Your task to perform on an android device: read, delete, or share a saved page in the chrome app Image 0: 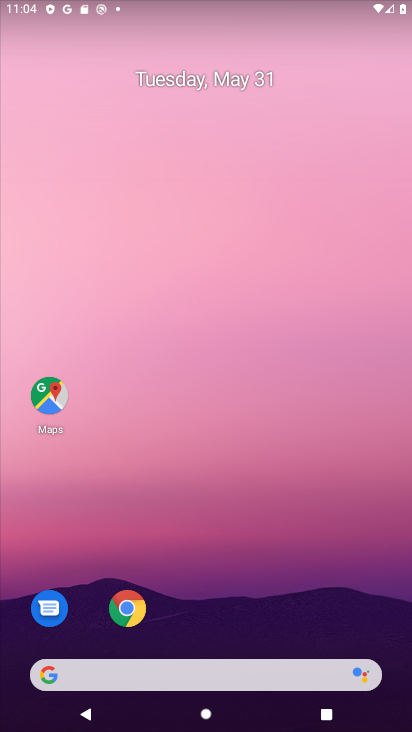
Step 0: press home button
Your task to perform on an android device: read, delete, or share a saved page in the chrome app Image 1: 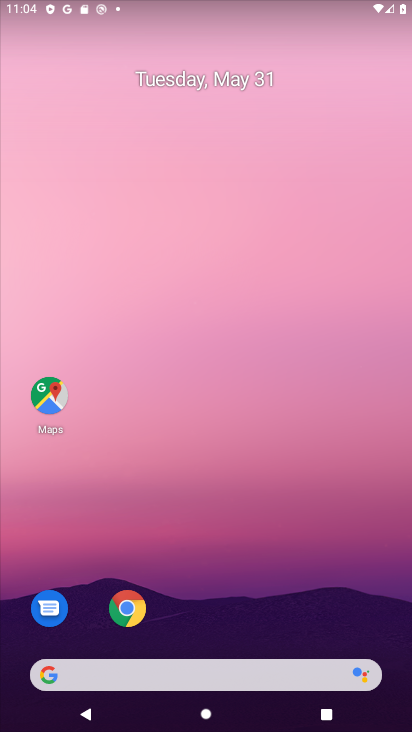
Step 1: drag from (368, 614) to (376, 119)
Your task to perform on an android device: read, delete, or share a saved page in the chrome app Image 2: 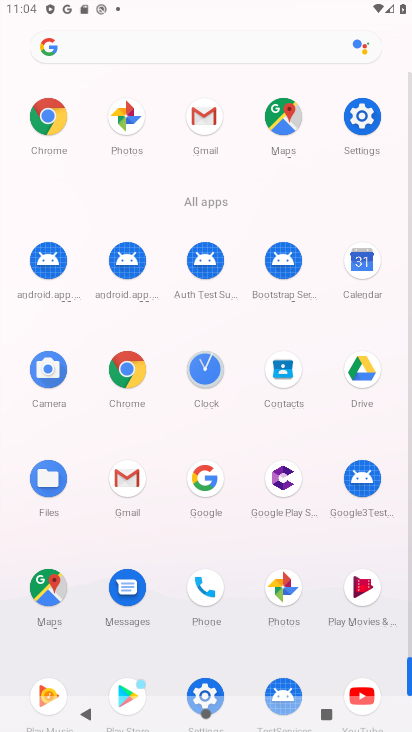
Step 2: drag from (403, 678) to (390, 731)
Your task to perform on an android device: read, delete, or share a saved page in the chrome app Image 3: 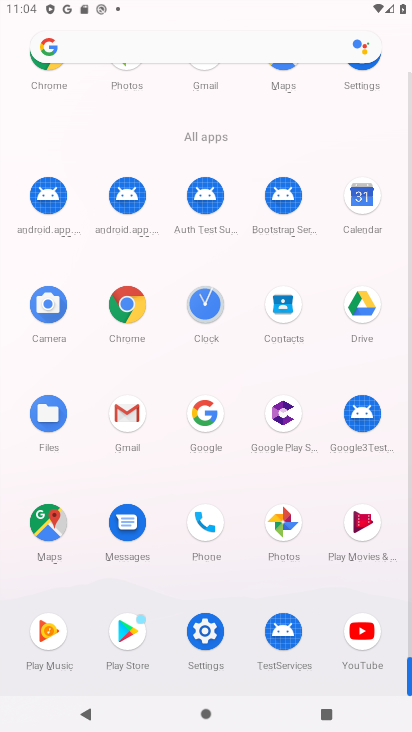
Step 3: click (126, 305)
Your task to perform on an android device: read, delete, or share a saved page in the chrome app Image 4: 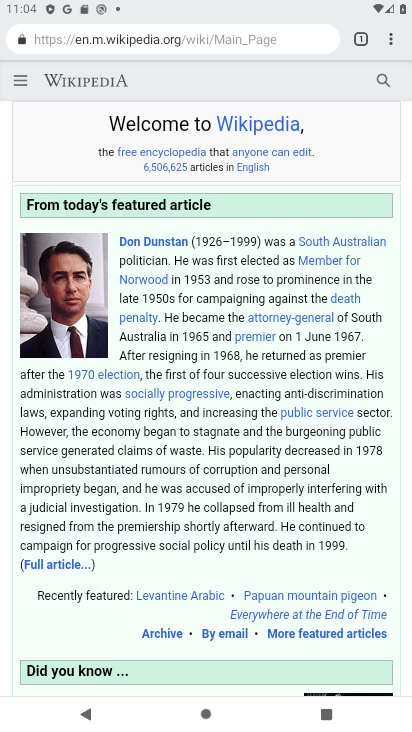
Step 4: drag from (382, 41) to (309, 251)
Your task to perform on an android device: read, delete, or share a saved page in the chrome app Image 5: 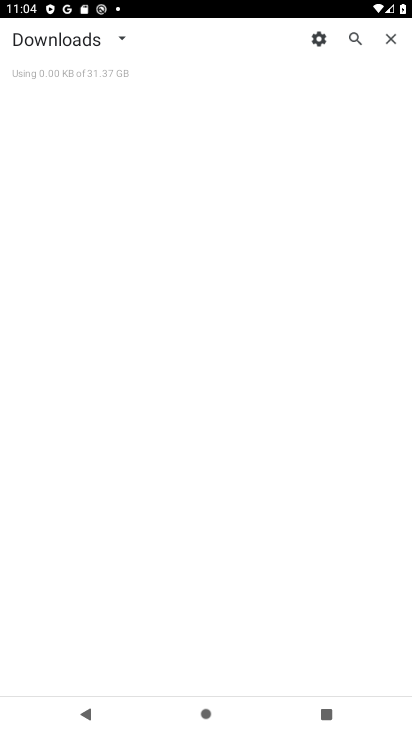
Step 5: click (133, 34)
Your task to perform on an android device: read, delete, or share a saved page in the chrome app Image 6: 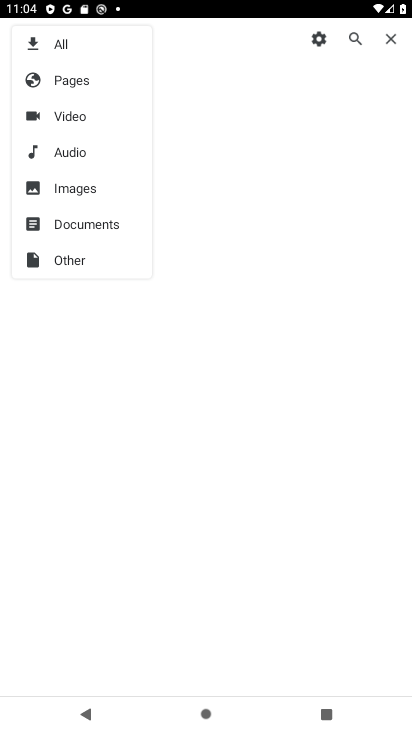
Step 6: click (61, 90)
Your task to perform on an android device: read, delete, or share a saved page in the chrome app Image 7: 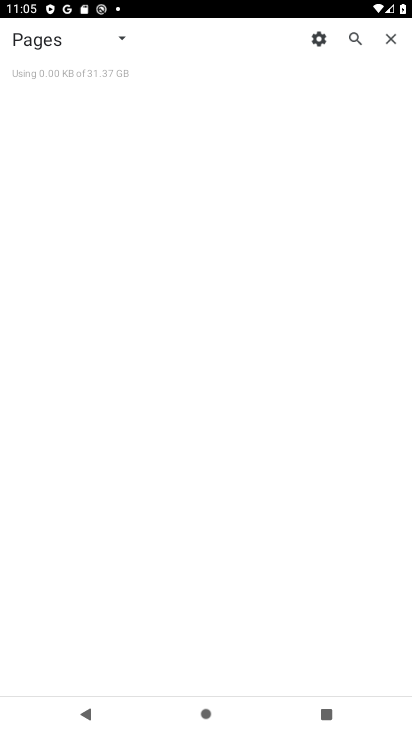
Step 7: task complete